Your task to perform on an android device: Go to Maps Image 0: 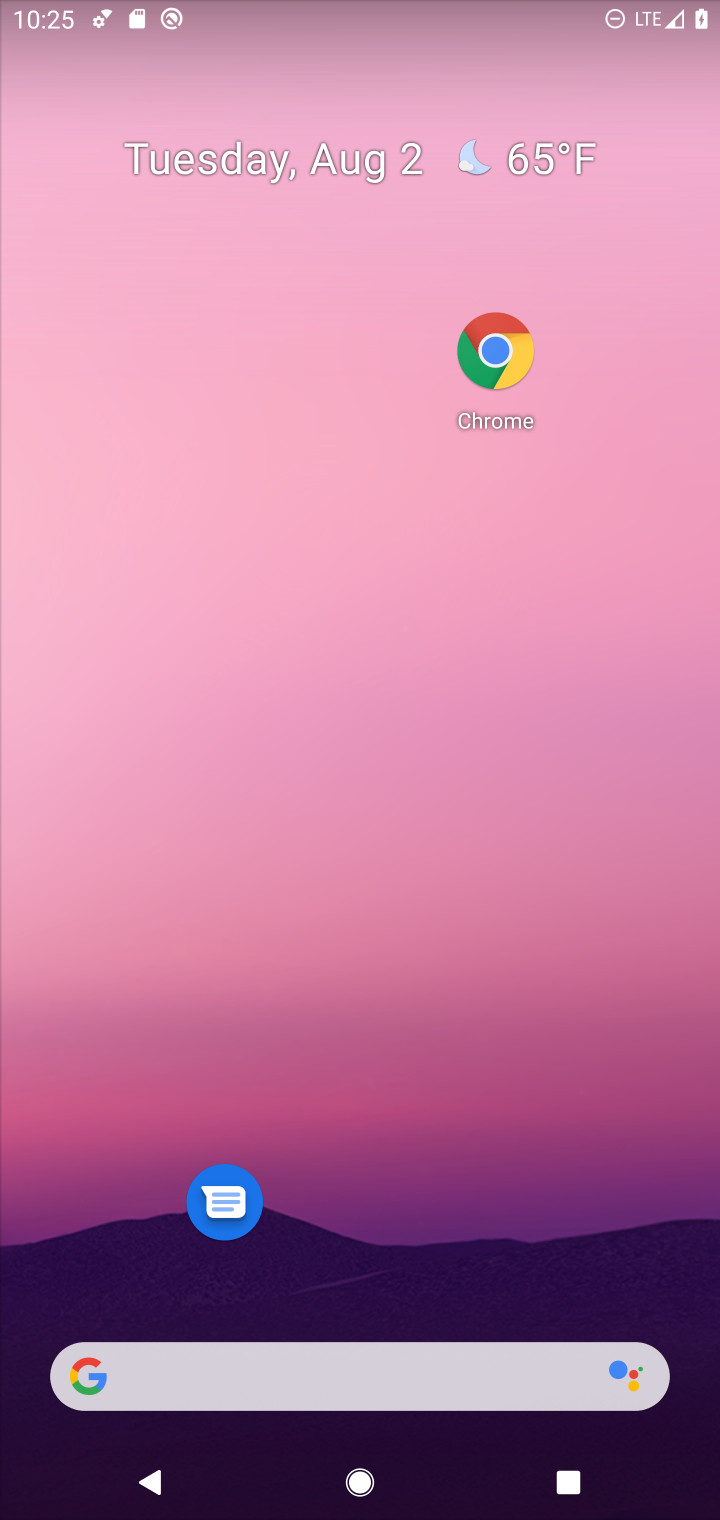
Step 0: drag from (404, 324) to (430, 4)
Your task to perform on an android device: Go to Maps Image 1: 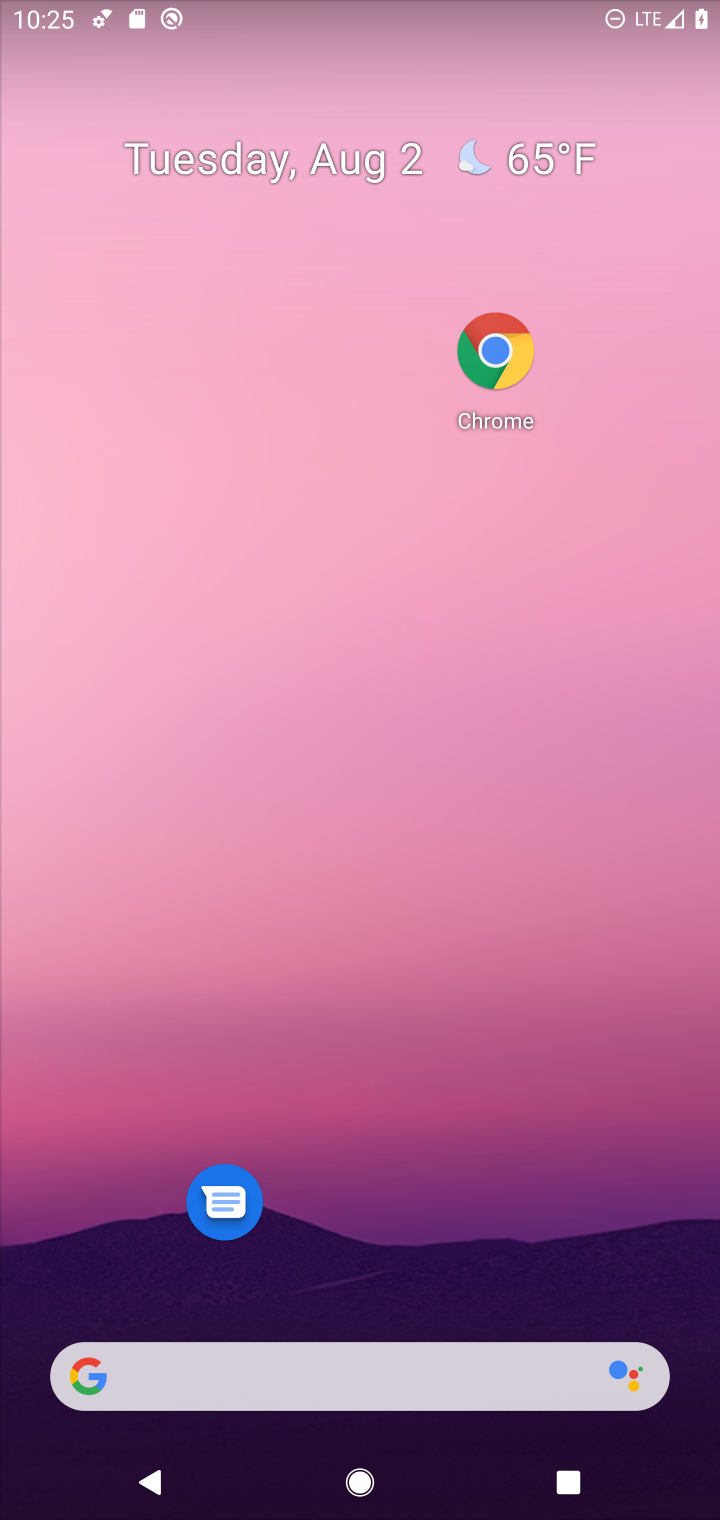
Step 1: drag from (383, 1290) to (407, 3)
Your task to perform on an android device: Go to Maps Image 2: 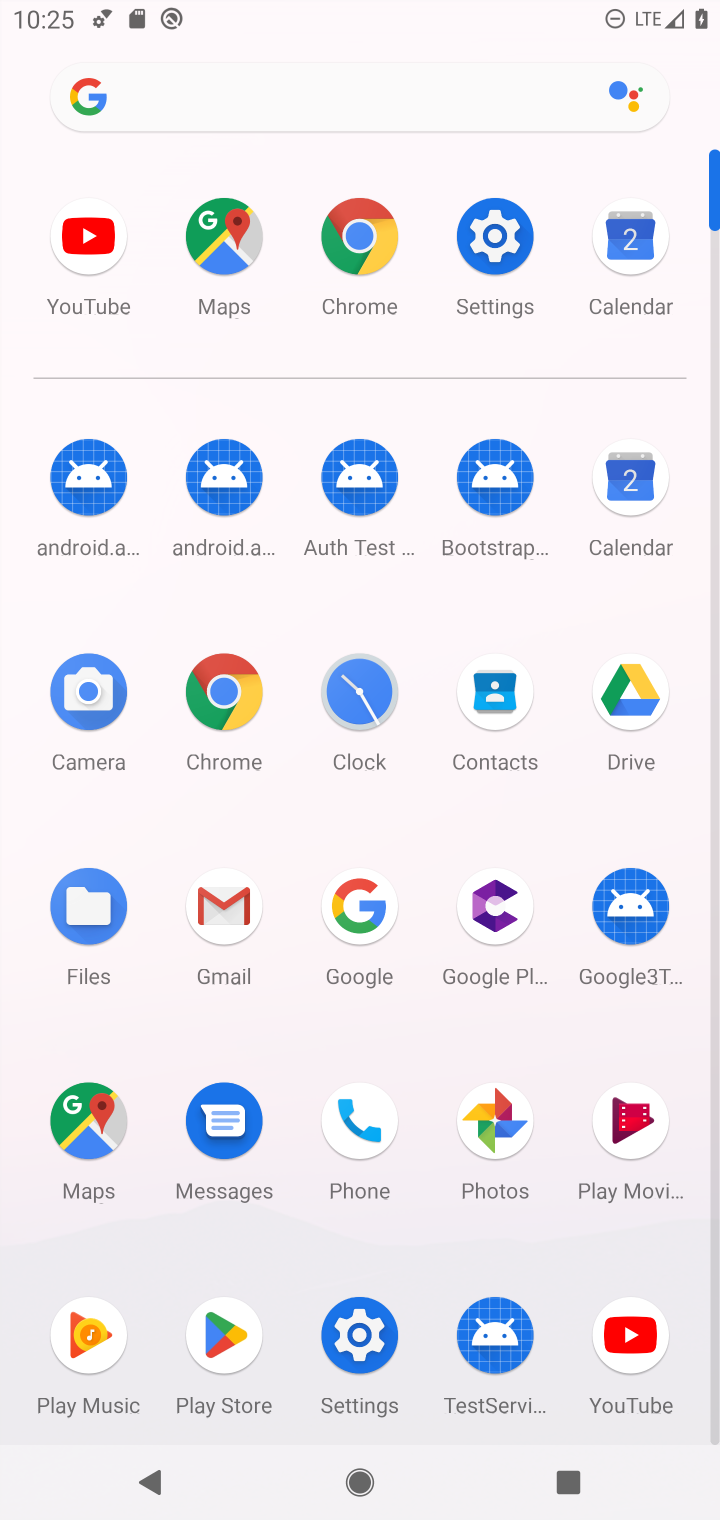
Step 2: click (219, 247)
Your task to perform on an android device: Go to Maps Image 3: 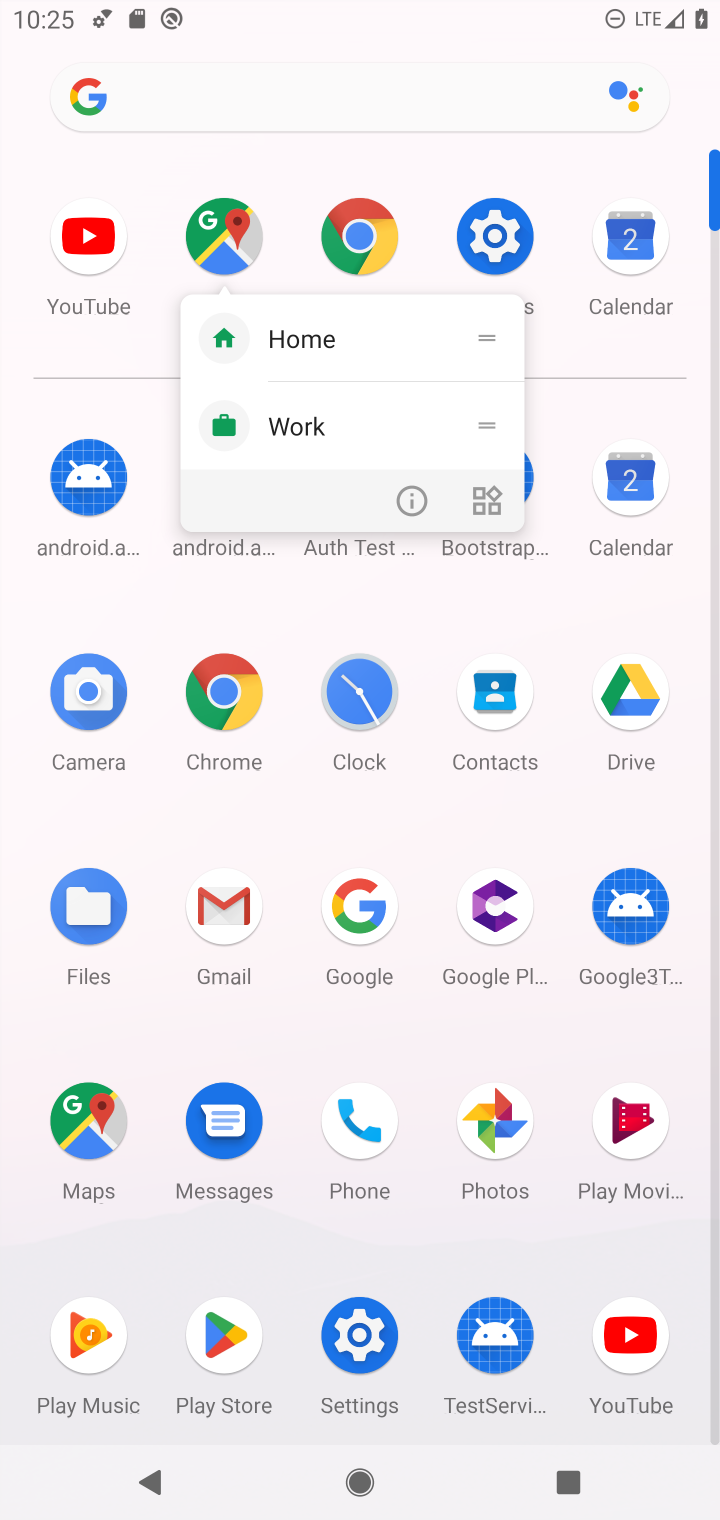
Step 3: click (234, 233)
Your task to perform on an android device: Go to Maps Image 4: 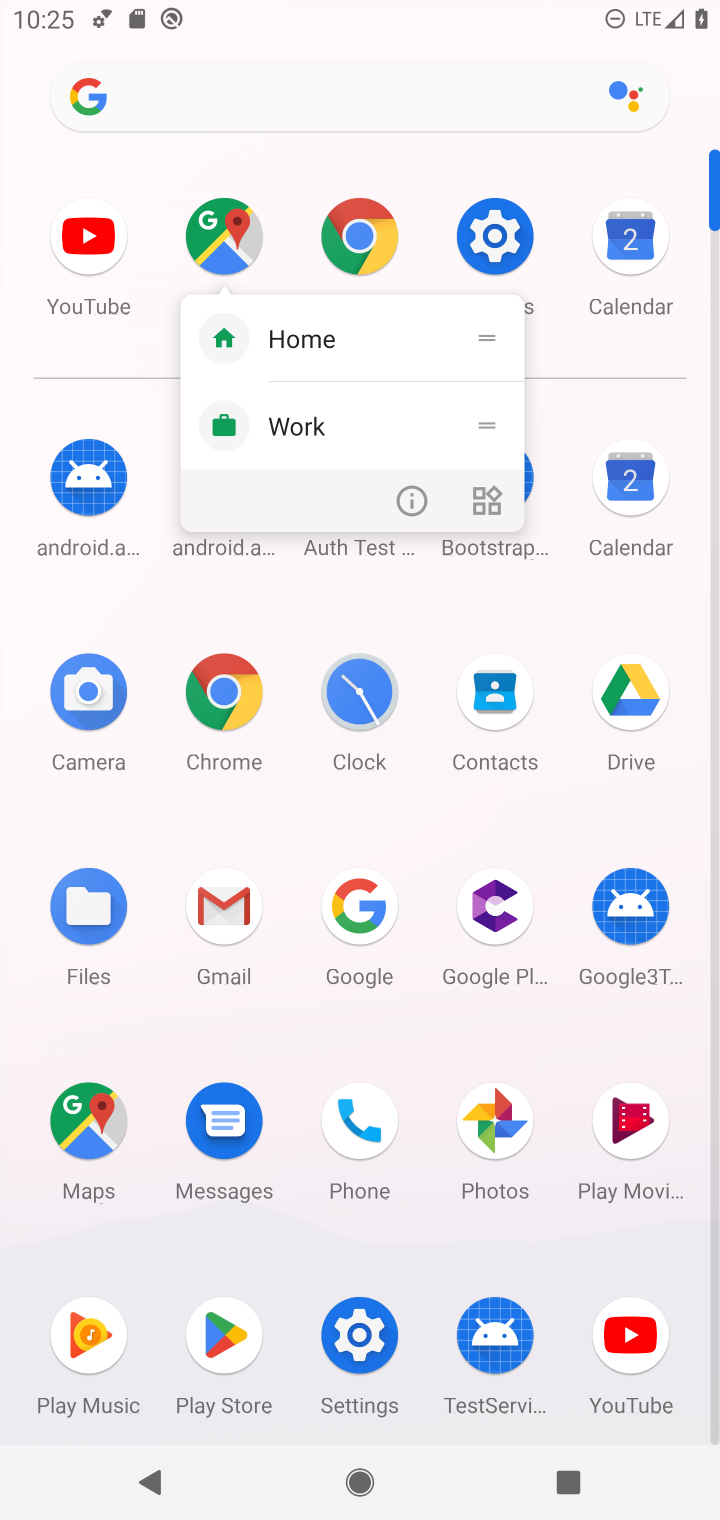
Step 4: click (234, 233)
Your task to perform on an android device: Go to Maps Image 5: 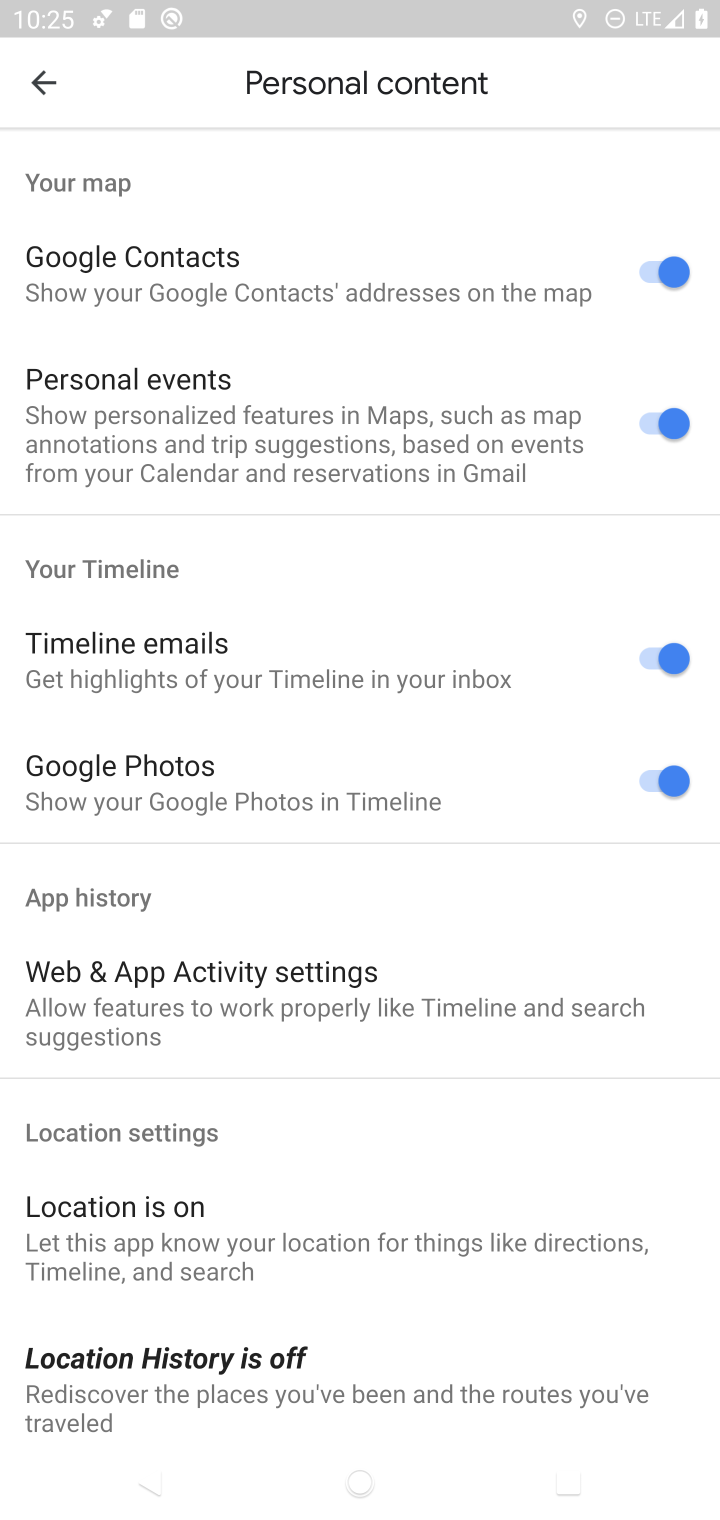
Step 5: click (44, 78)
Your task to perform on an android device: Go to Maps Image 6: 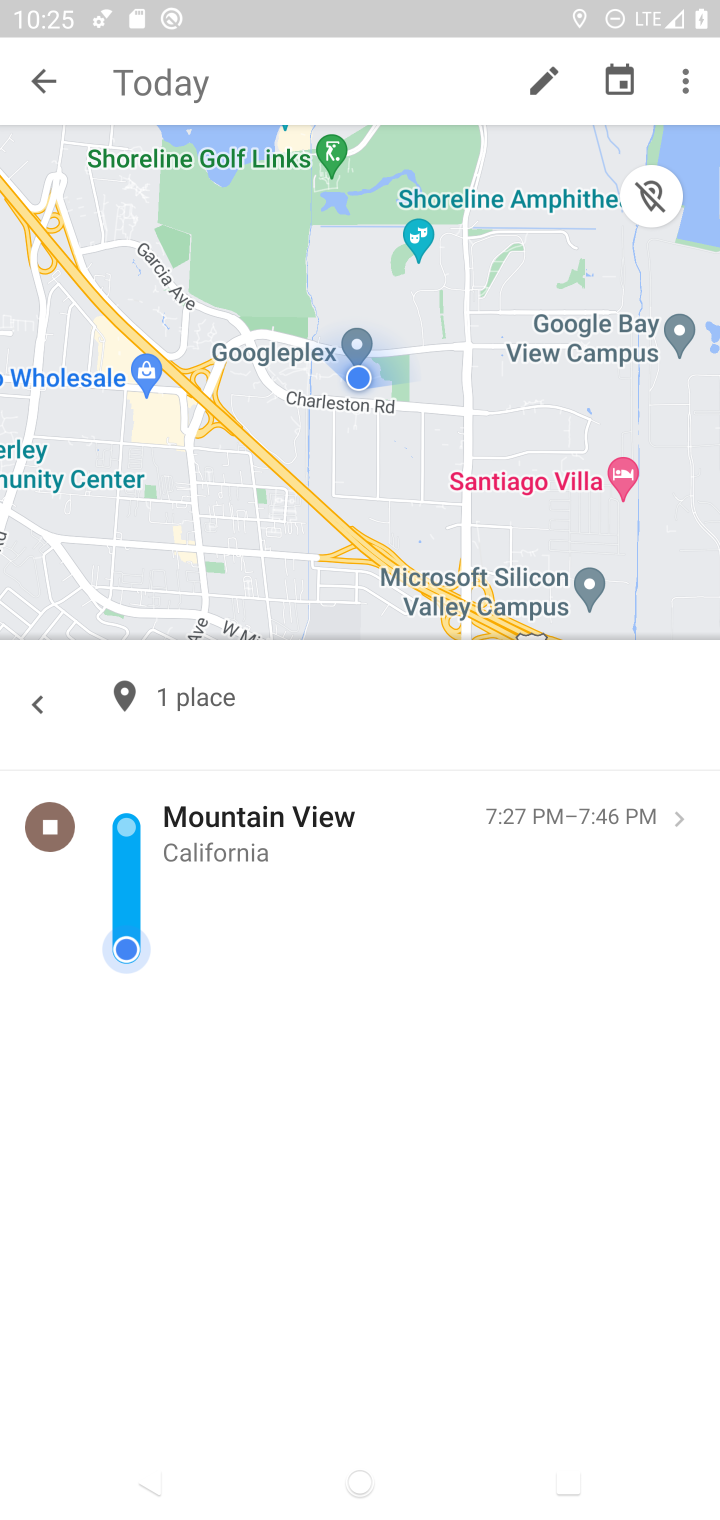
Step 6: click (44, 78)
Your task to perform on an android device: Go to Maps Image 7: 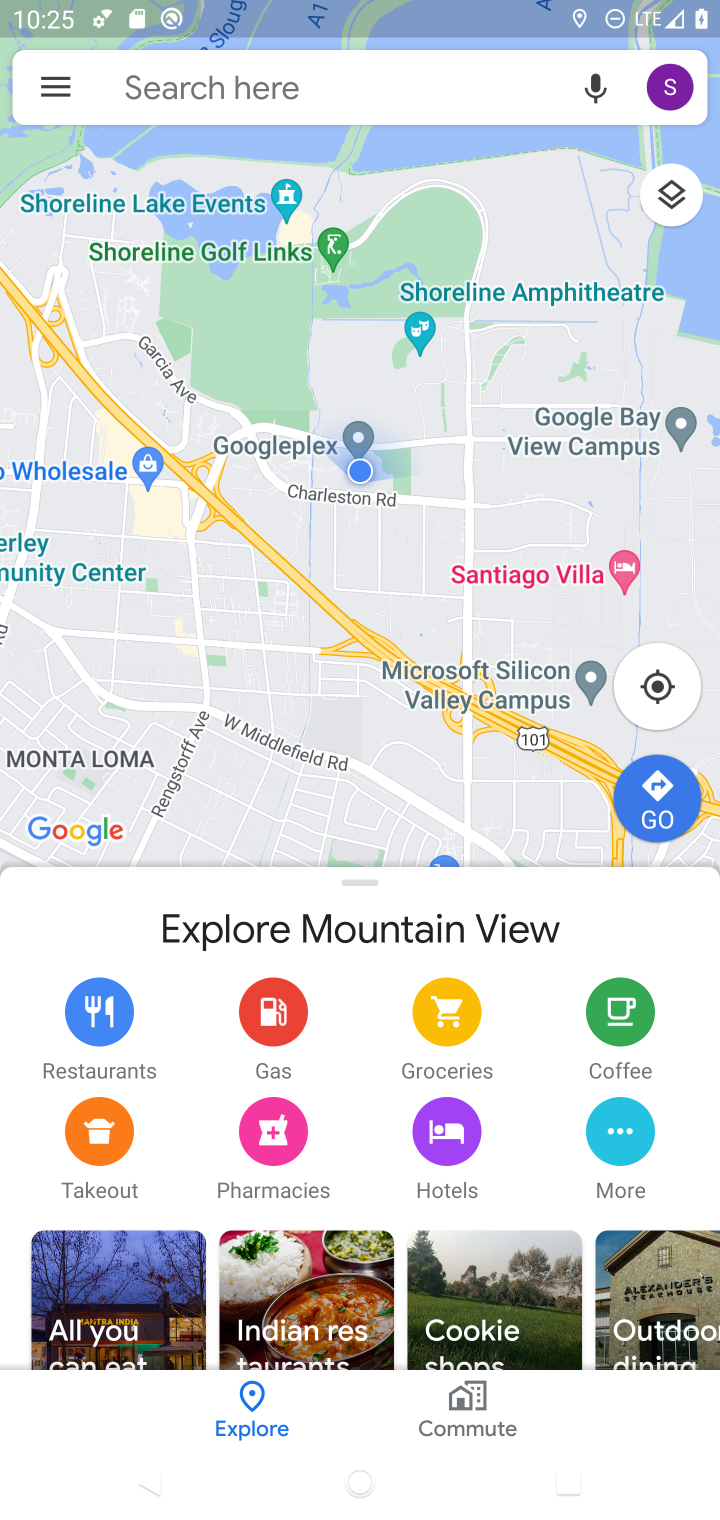
Step 7: task complete